Your task to perform on an android device: set default search engine in the chrome app Image 0: 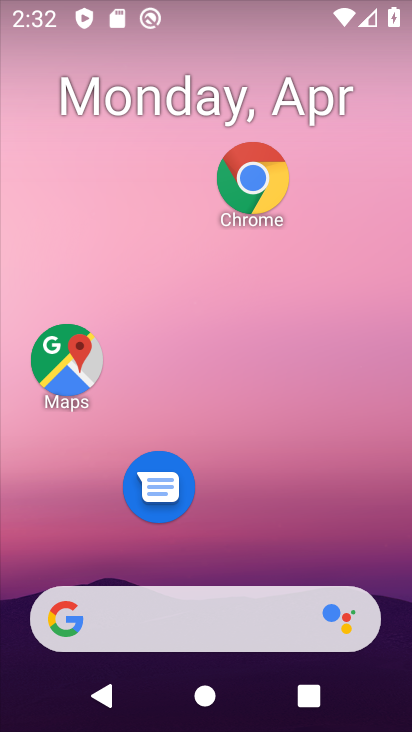
Step 0: click (246, 183)
Your task to perform on an android device: set default search engine in the chrome app Image 1: 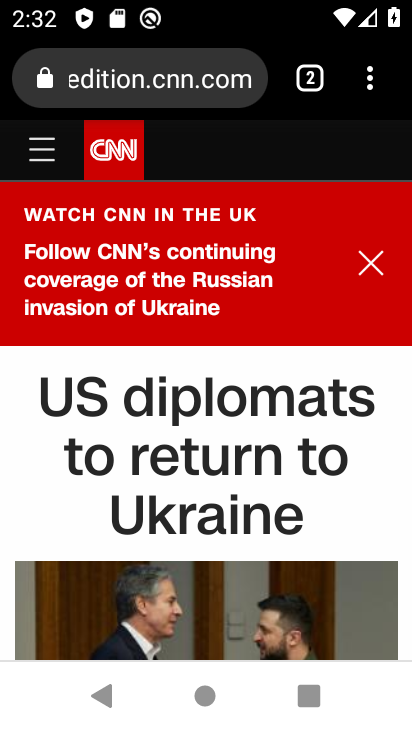
Step 1: click (369, 66)
Your task to perform on an android device: set default search engine in the chrome app Image 2: 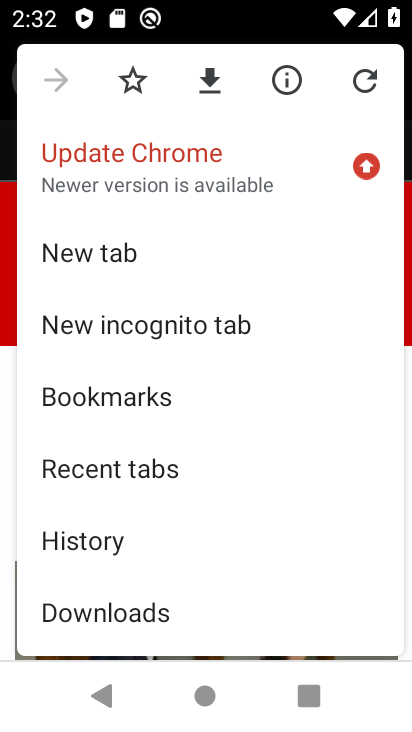
Step 2: drag from (242, 538) to (257, 156)
Your task to perform on an android device: set default search engine in the chrome app Image 3: 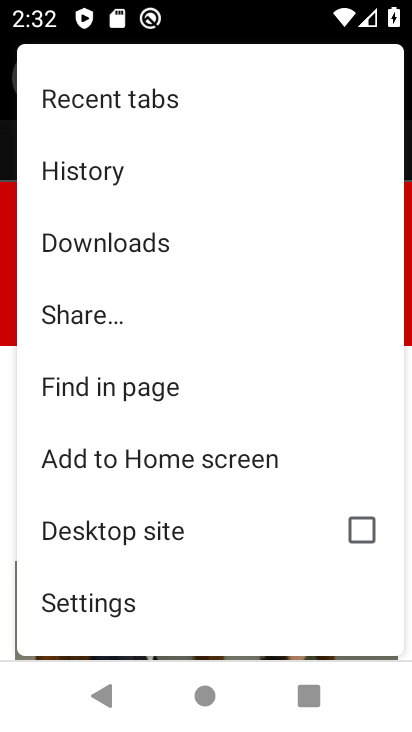
Step 3: click (118, 602)
Your task to perform on an android device: set default search engine in the chrome app Image 4: 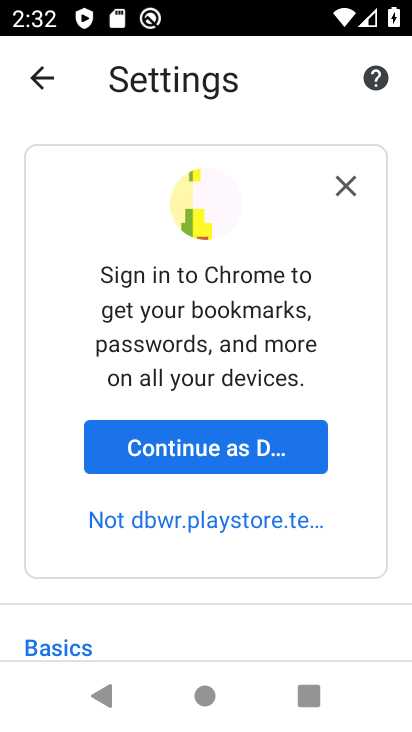
Step 4: drag from (193, 481) to (228, 103)
Your task to perform on an android device: set default search engine in the chrome app Image 5: 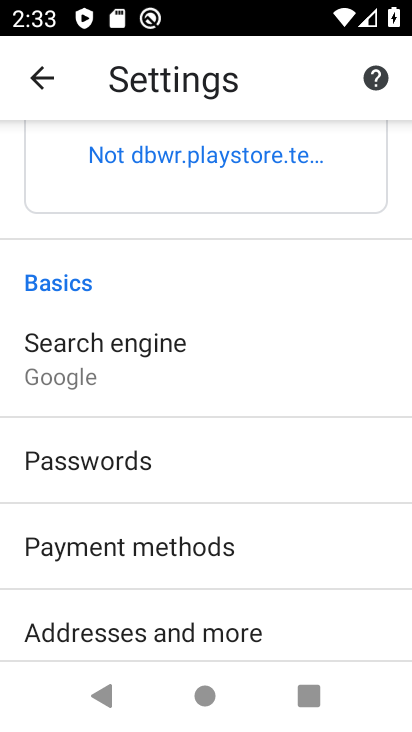
Step 5: click (122, 339)
Your task to perform on an android device: set default search engine in the chrome app Image 6: 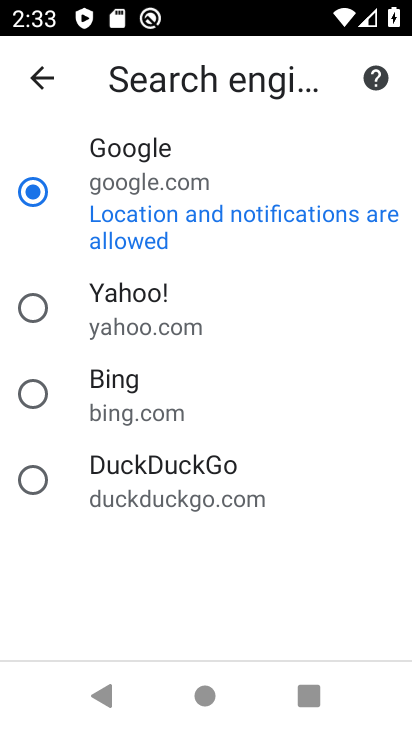
Step 6: task complete